Your task to perform on an android device: turn on improve location accuracy Image 0: 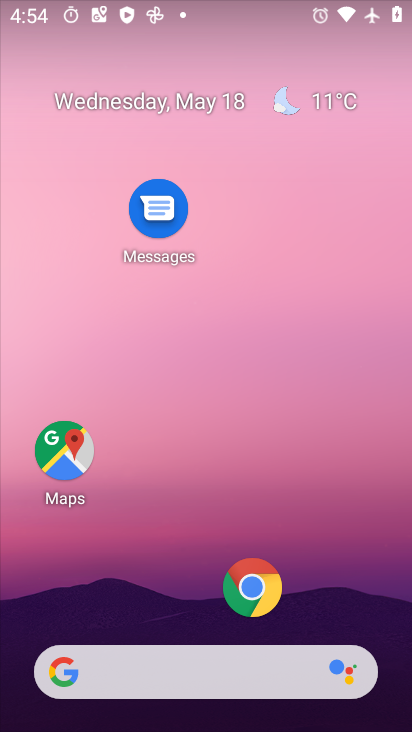
Step 0: drag from (287, 596) to (340, 125)
Your task to perform on an android device: turn on improve location accuracy Image 1: 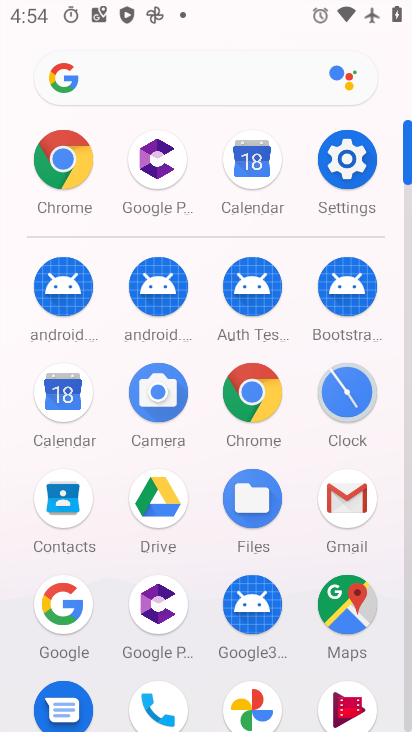
Step 1: click (350, 184)
Your task to perform on an android device: turn on improve location accuracy Image 2: 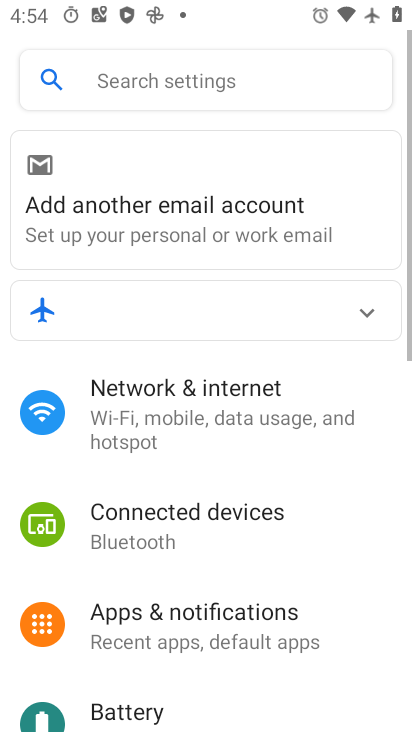
Step 2: drag from (291, 591) to (318, 227)
Your task to perform on an android device: turn on improve location accuracy Image 3: 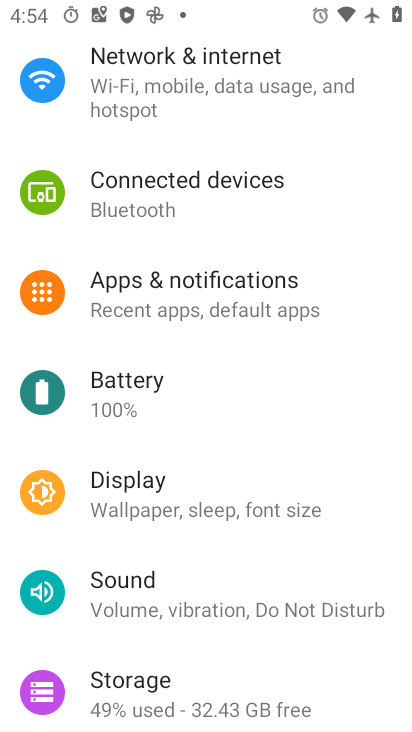
Step 3: drag from (290, 623) to (271, 316)
Your task to perform on an android device: turn on improve location accuracy Image 4: 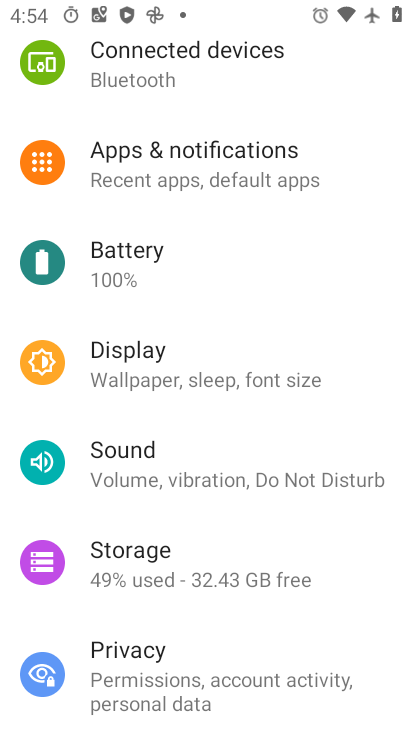
Step 4: drag from (279, 532) to (319, 84)
Your task to perform on an android device: turn on improve location accuracy Image 5: 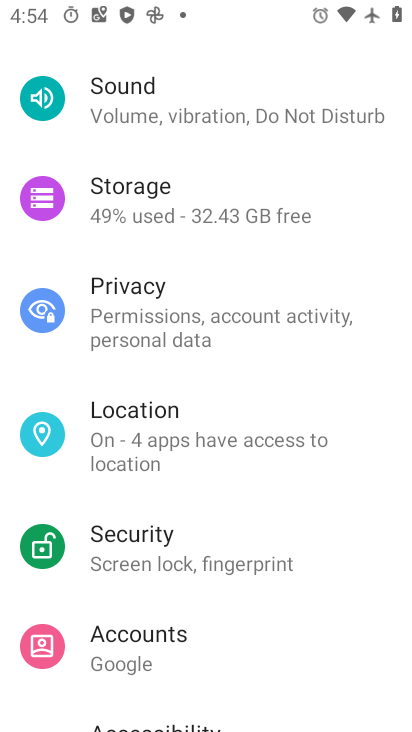
Step 5: click (215, 449)
Your task to perform on an android device: turn on improve location accuracy Image 6: 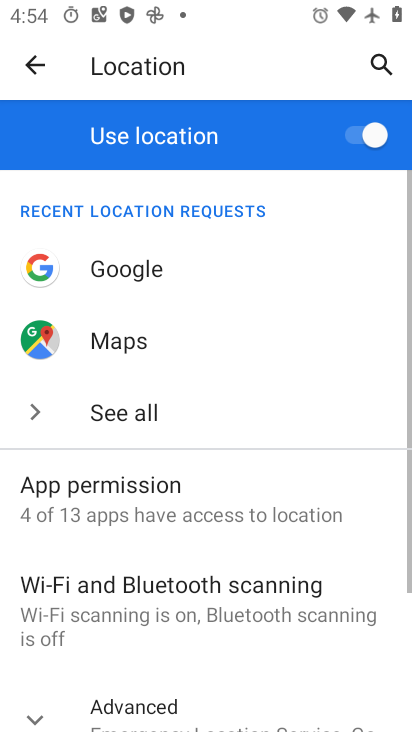
Step 6: drag from (215, 449) to (256, 212)
Your task to perform on an android device: turn on improve location accuracy Image 7: 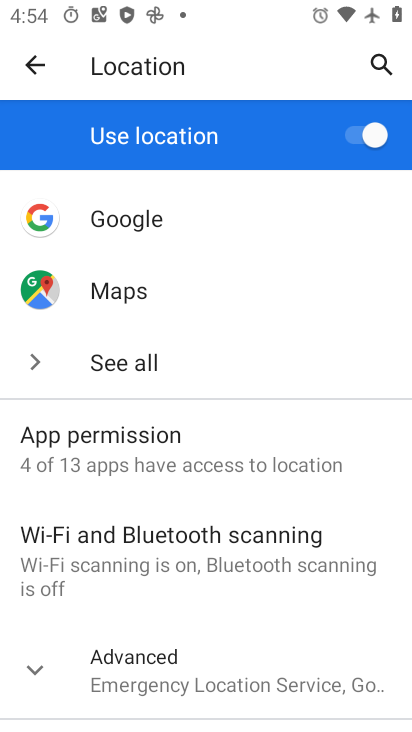
Step 7: click (248, 691)
Your task to perform on an android device: turn on improve location accuracy Image 8: 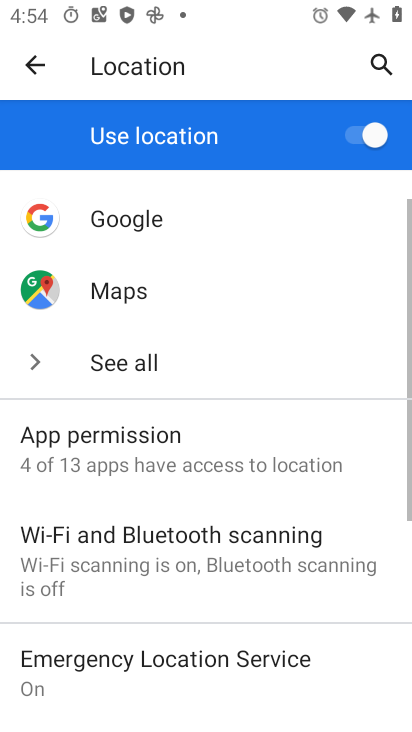
Step 8: drag from (248, 691) to (290, 269)
Your task to perform on an android device: turn on improve location accuracy Image 9: 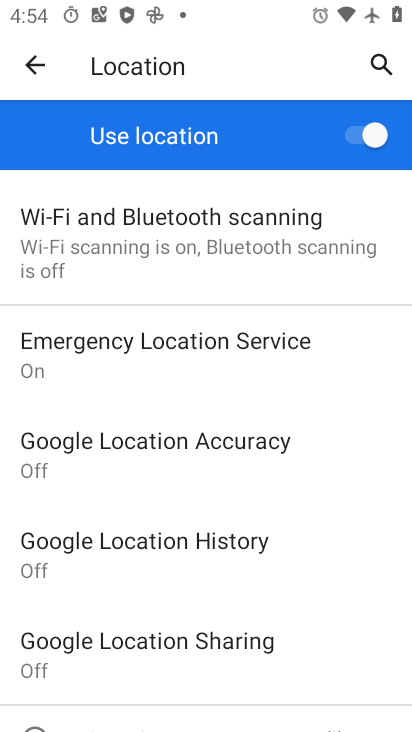
Step 9: click (242, 460)
Your task to perform on an android device: turn on improve location accuracy Image 10: 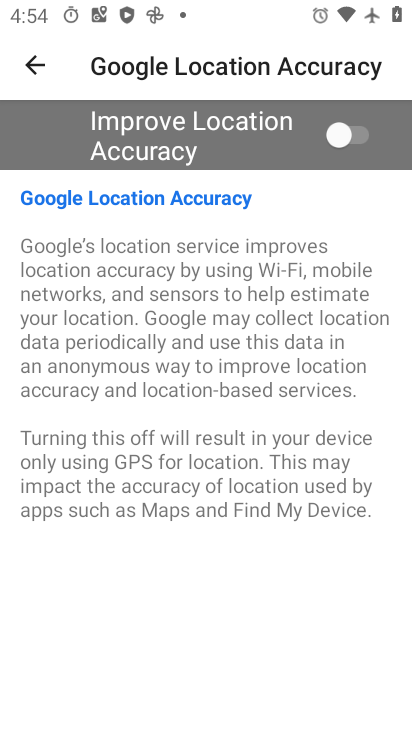
Step 10: click (361, 144)
Your task to perform on an android device: turn on improve location accuracy Image 11: 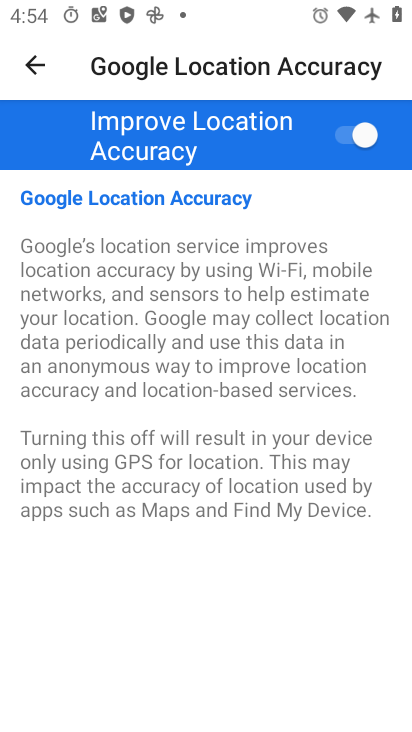
Step 11: task complete